Your task to perform on an android device: Search for coffee table on Crate & Barrel Image 0: 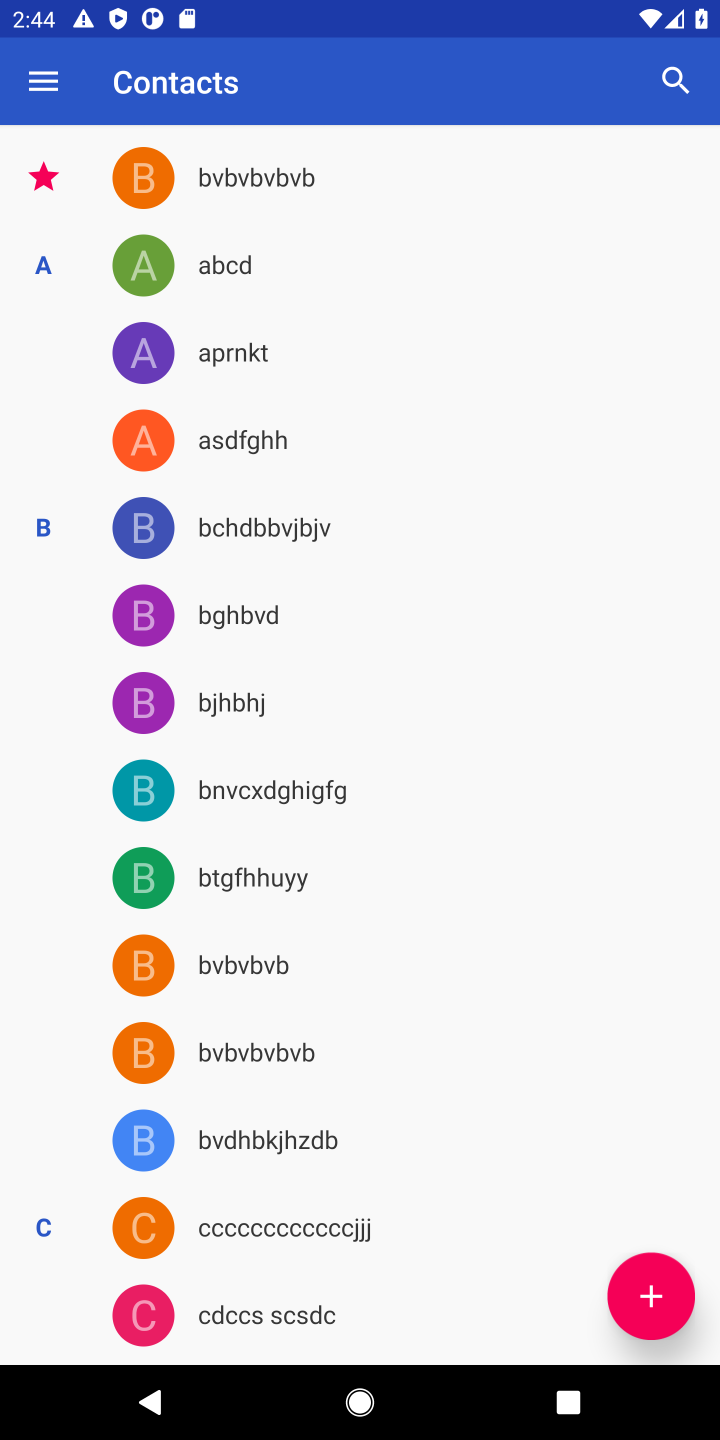
Step 0: press home button
Your task to perform on an android device: Search for coffee table on Crate & Barrel Image 1: 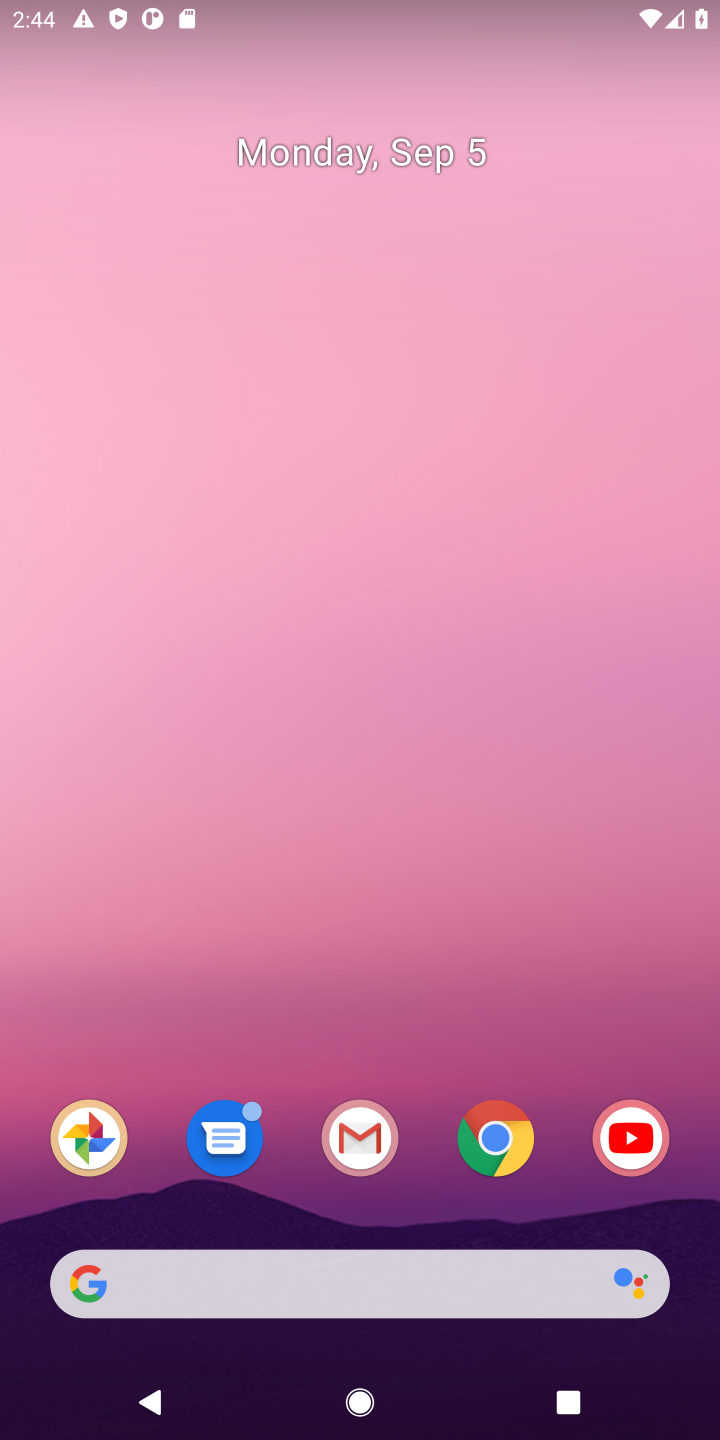
Step 1: click (494, 1140)
Your task to perform on an android device: Search for coffee table on Crate & Barrel Image 2: 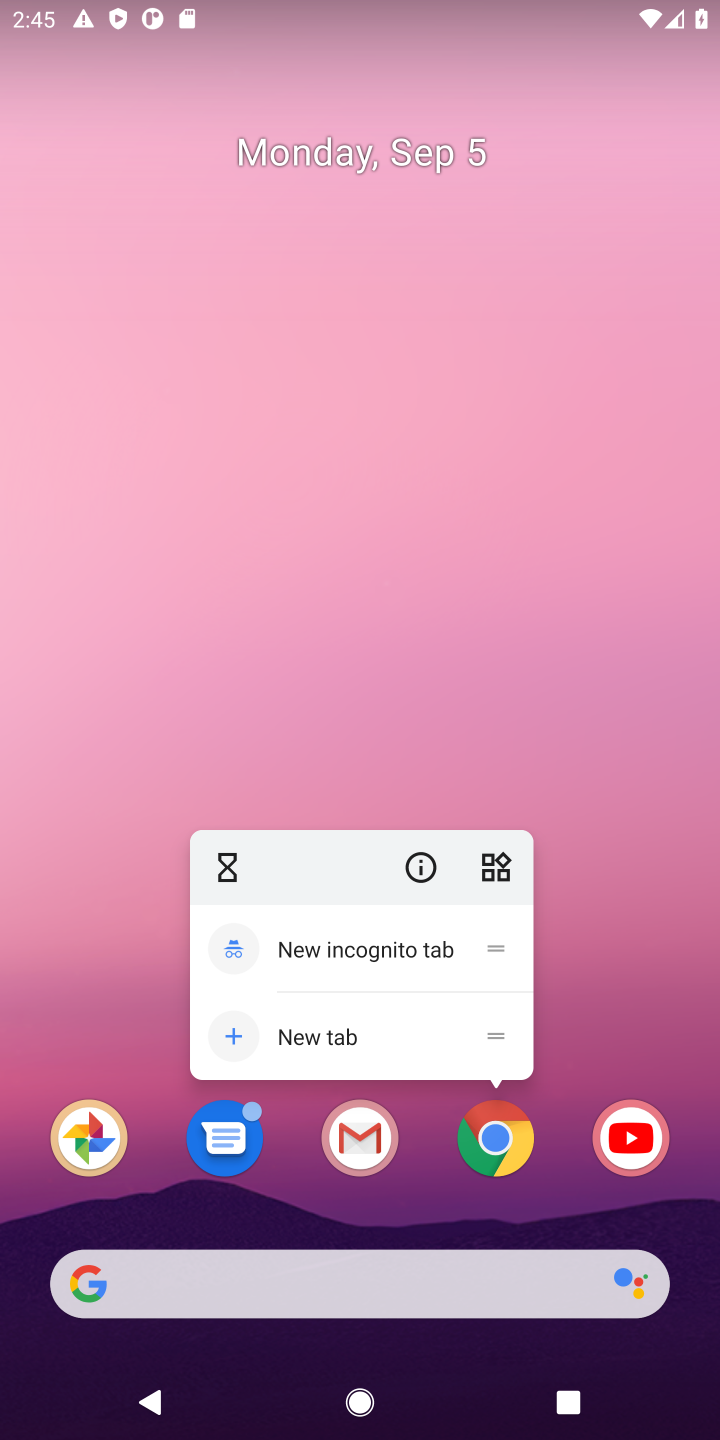
Step 2: click (502, 1135)
Your task to perform on an android device: Search for coffee table on Crate & Barrel Image 3: 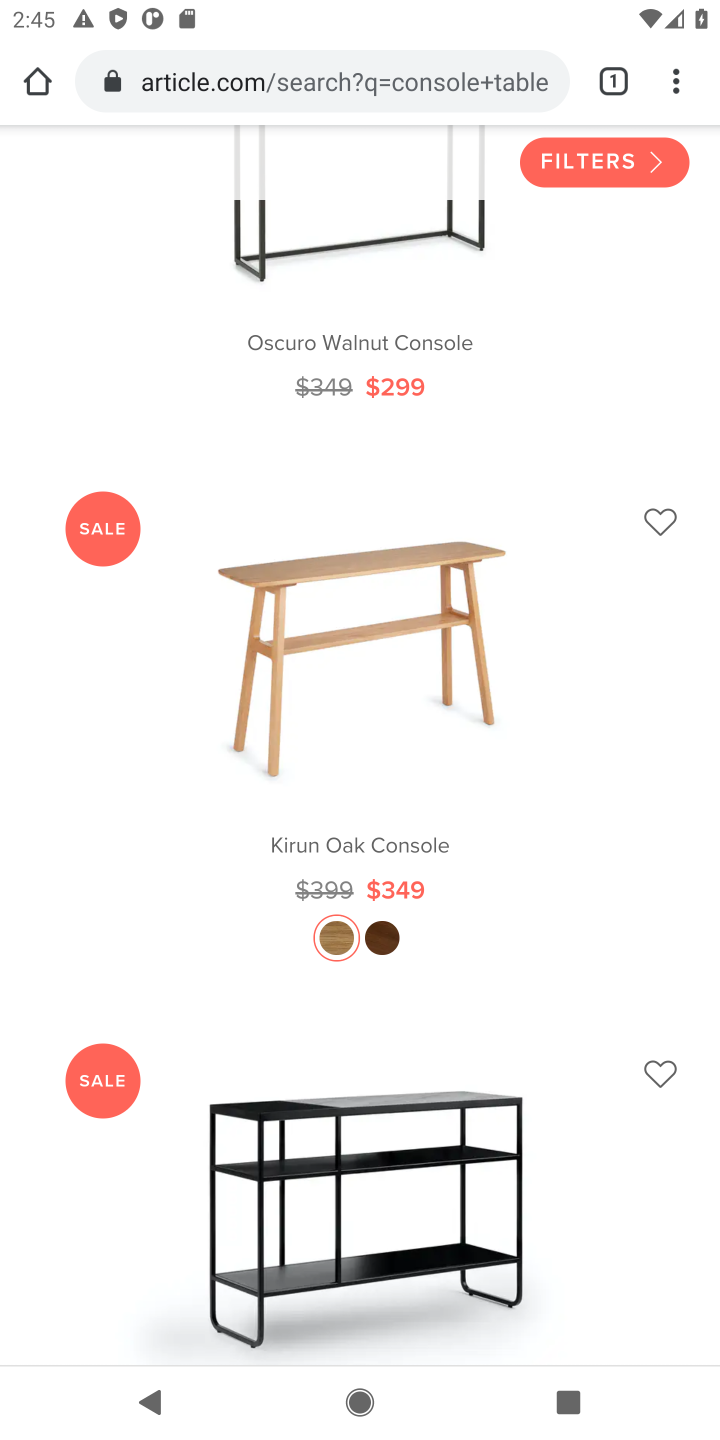
Step 3: click (341, 76)
Your task to perform on an android device: Search for coffee table on Crate & Barrel Image 4: 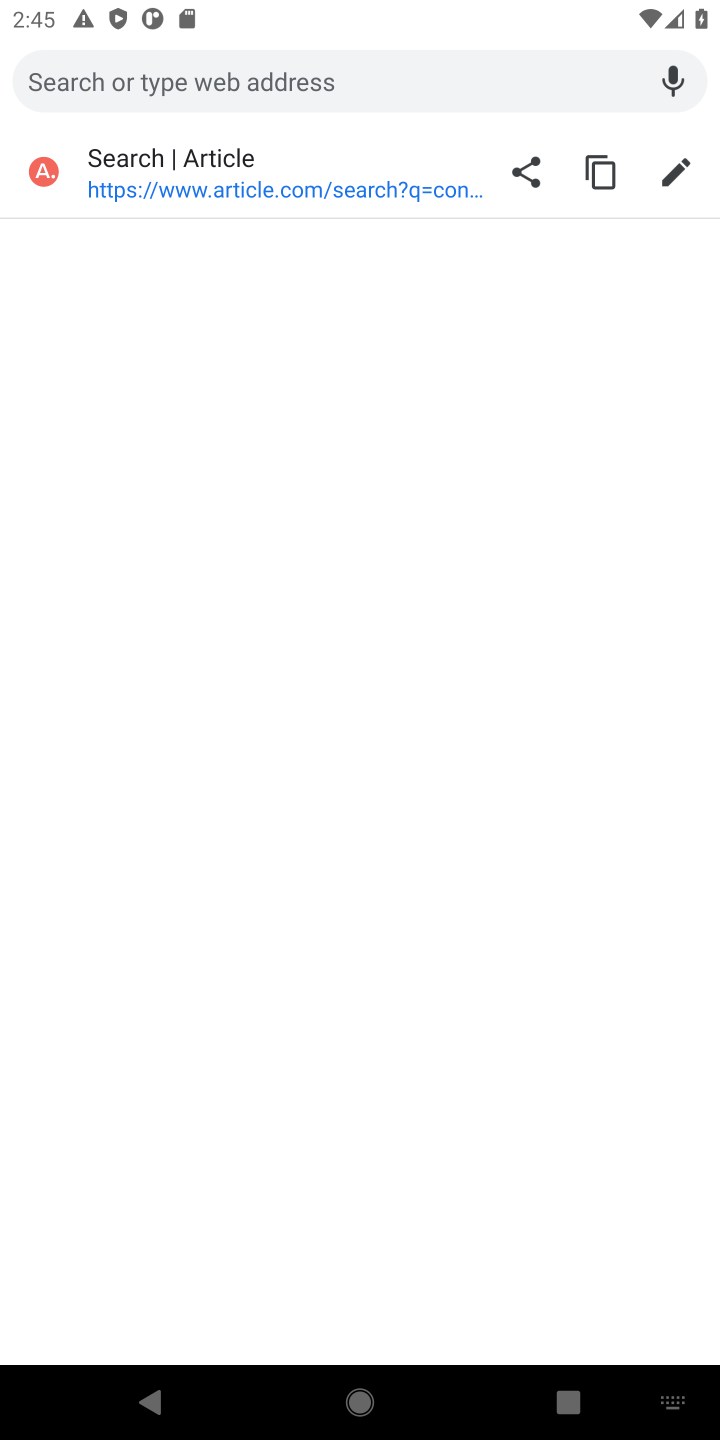
Step 4: click (247, 84)
Your task to perform on an android device: Search for coffee table on Crate & Barrel Image 5: 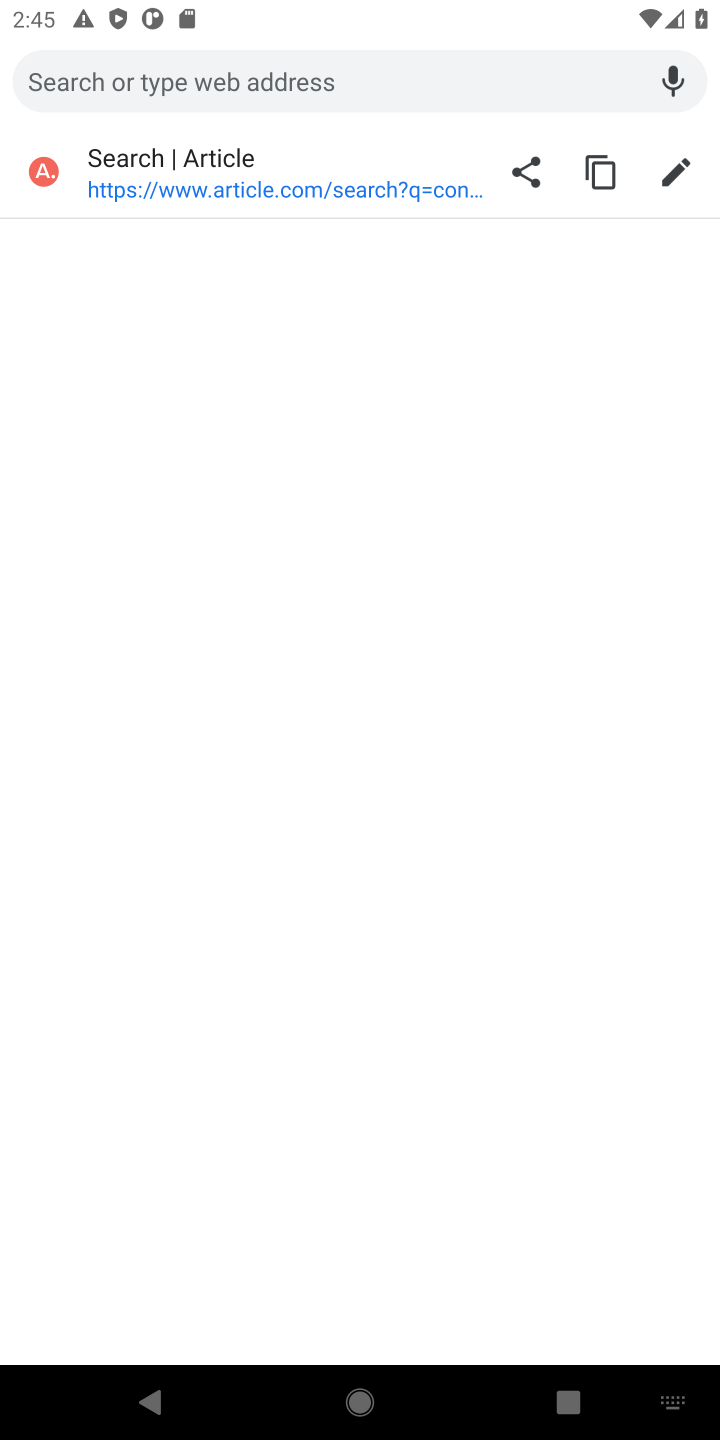
Step 5: type "Crate & Barrel"
Your task to perform on an android device: Search for coffee table on Crate & Barrel Image 6: 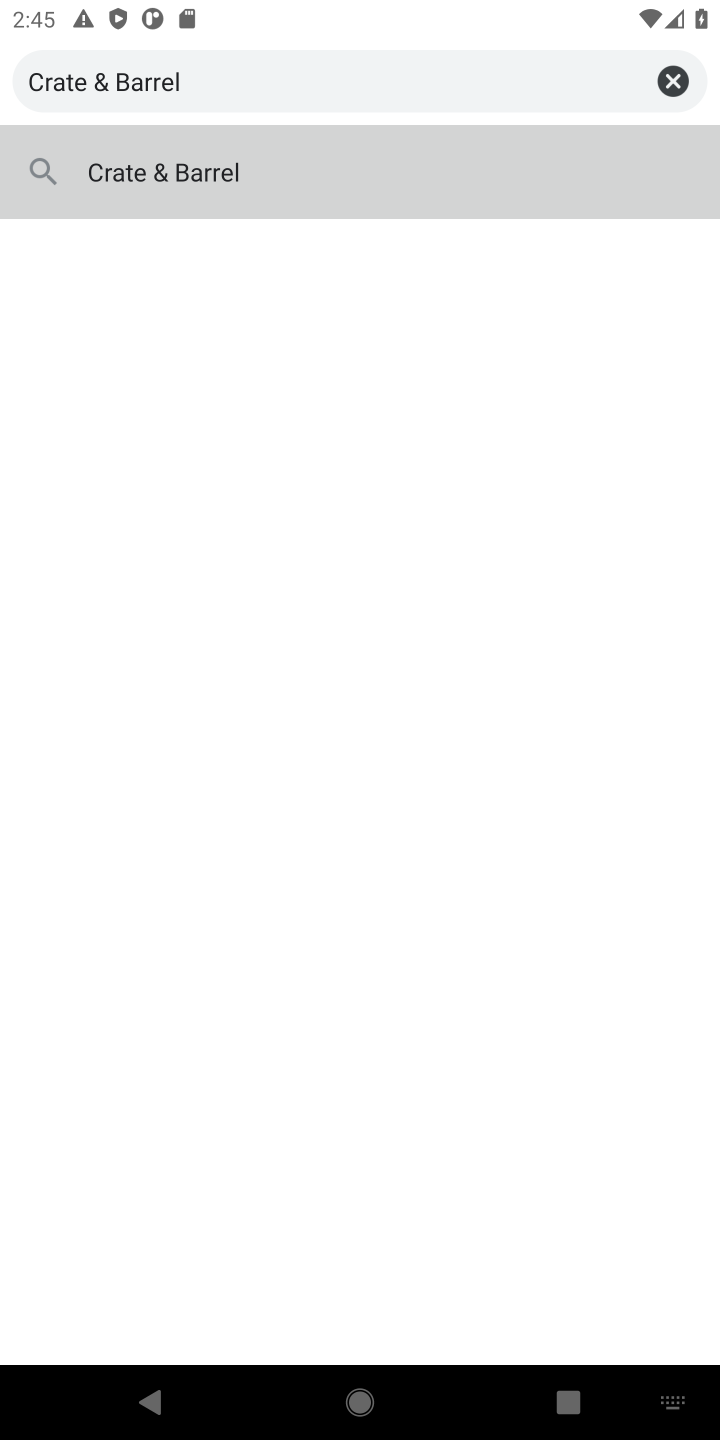
Step 6: click (370, 196)
Your task to perform on an android device: Search for coffee table on Crate & Barrel Image 7: 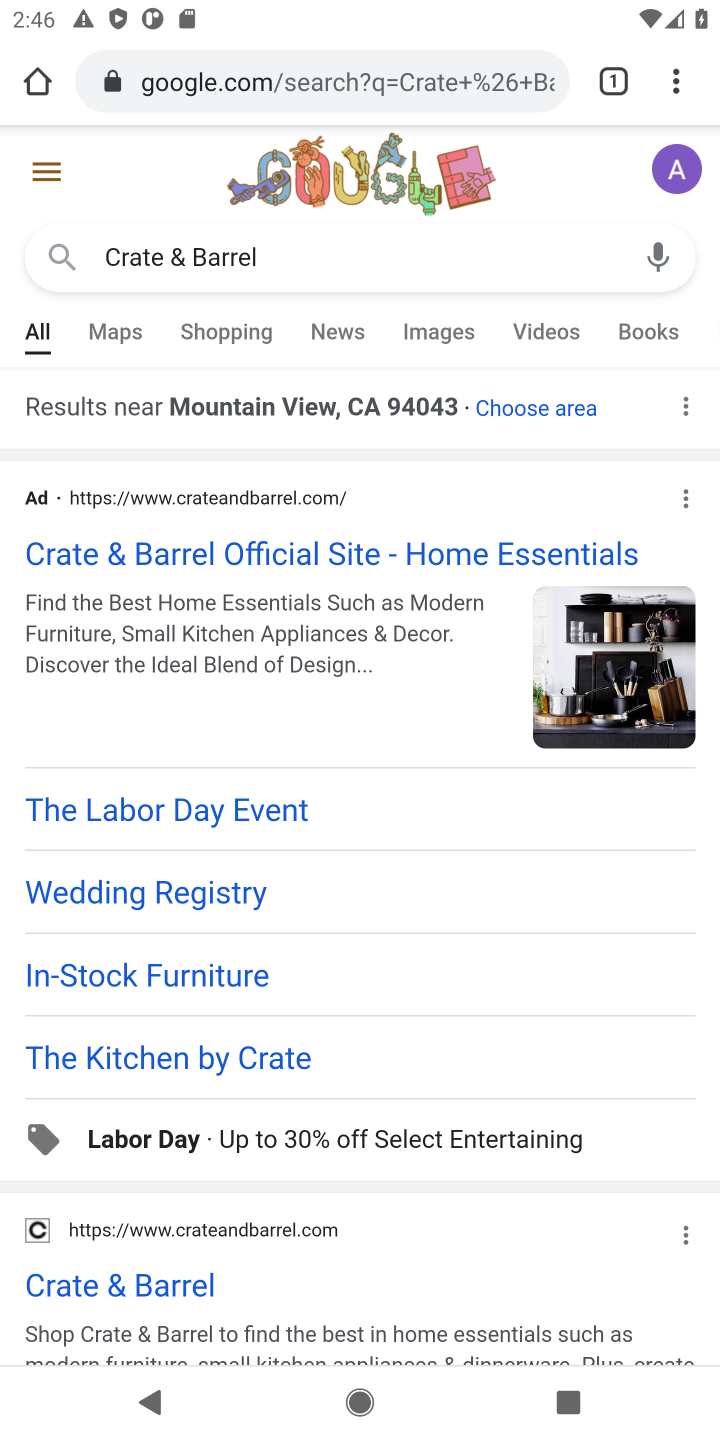
Step 7: click (229, 1299)
Your task to perform on an android device: Search for coffee table on Crate & Barrel Image 8: 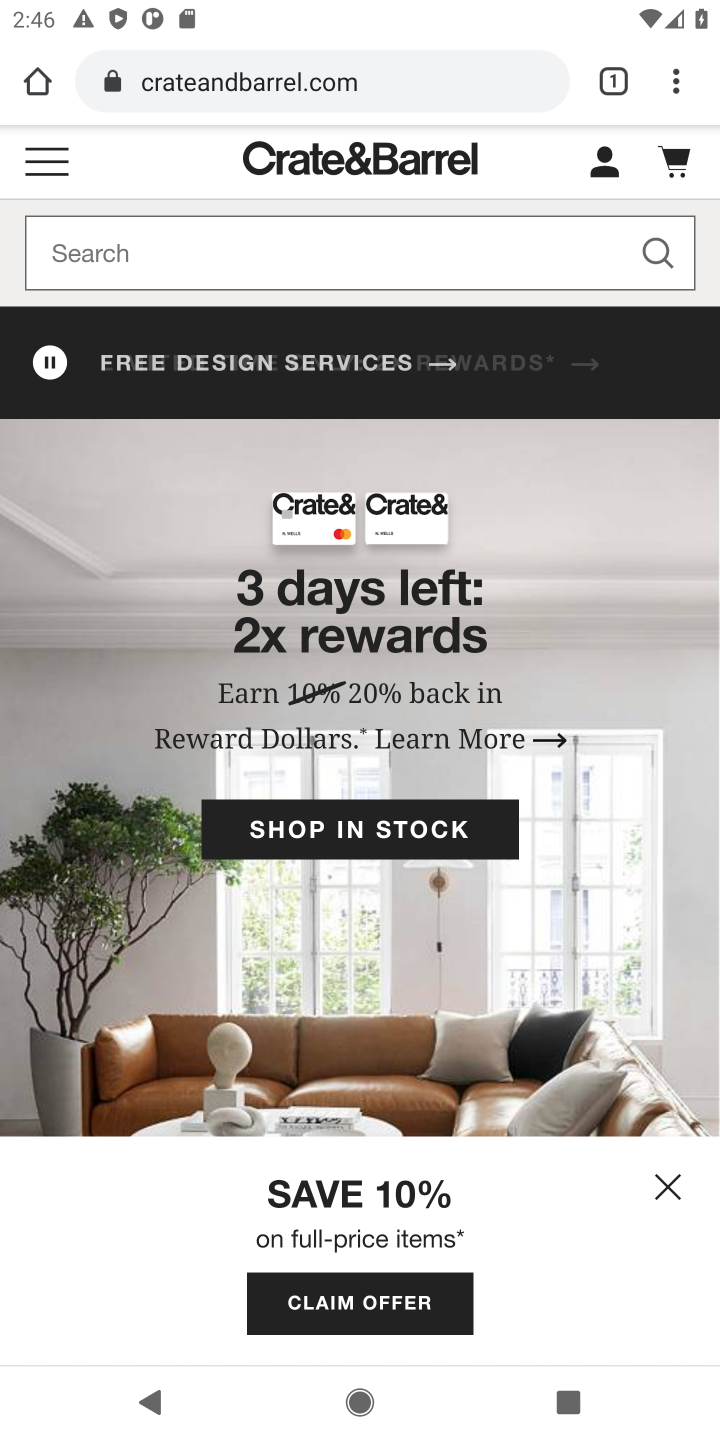
Step 8: click (359, 248)
Your task to perform on an android device: Search for coffee table on Crate & Barrel Image 9: 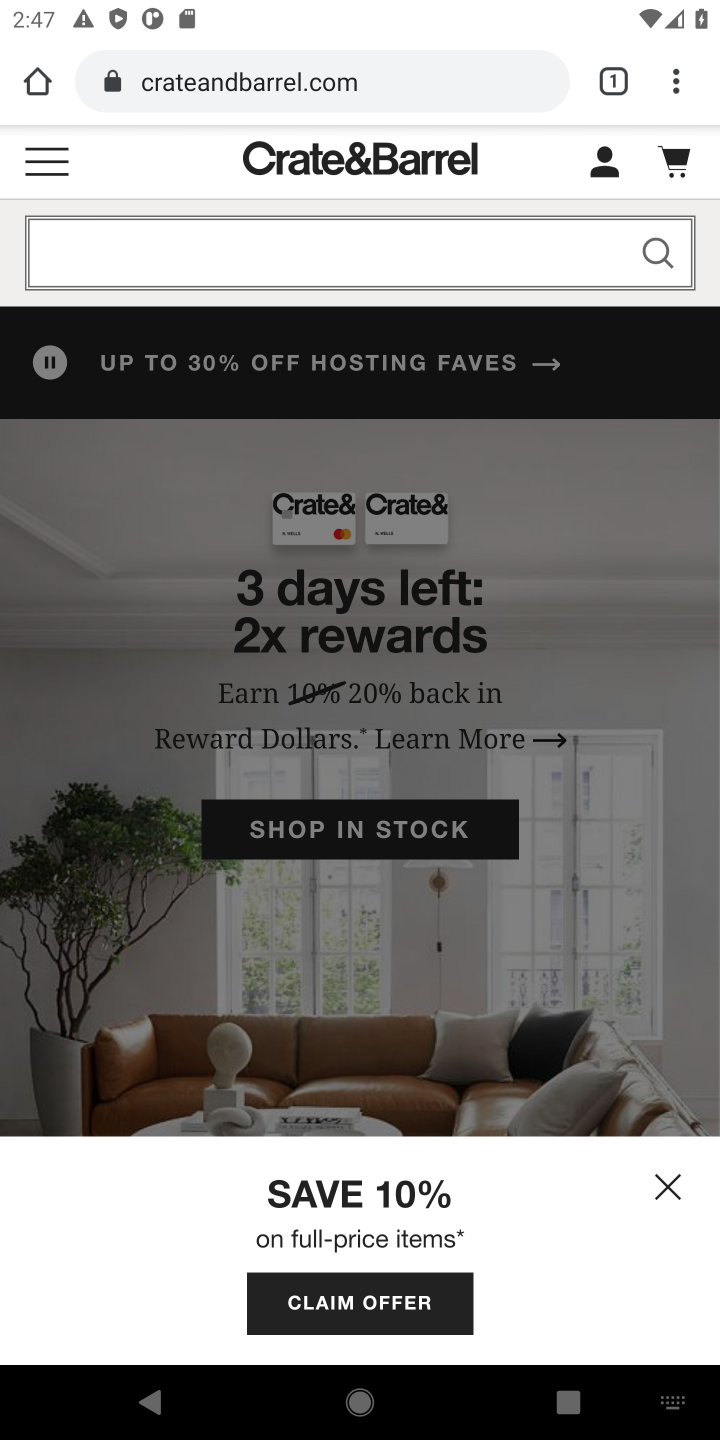
Step 9: type "coffee table"
Your task to perform on an android device: Search for coffee table on Crate & Barrel Image 10: 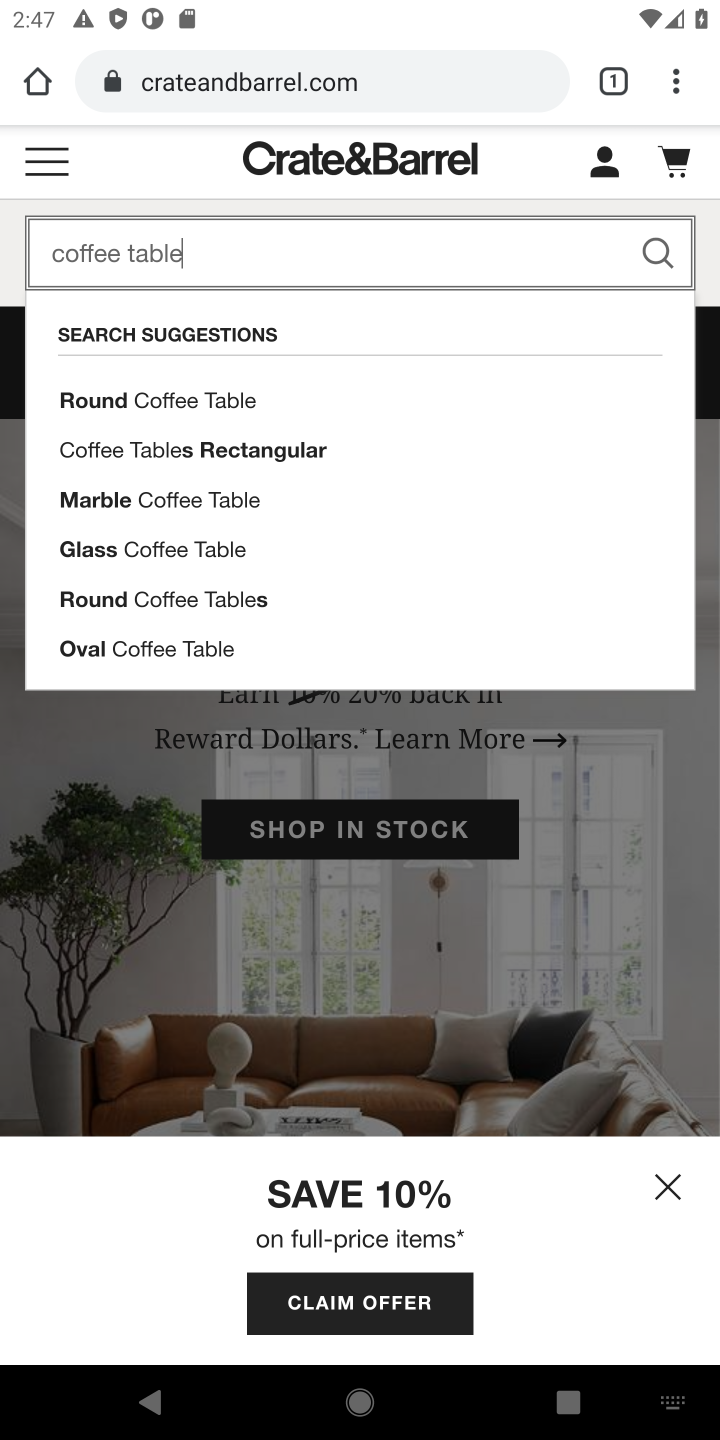
Step 10: click (665, 258)
Your task to perform on an android device: Search for coffee table on Crate & Barrel Image 11: 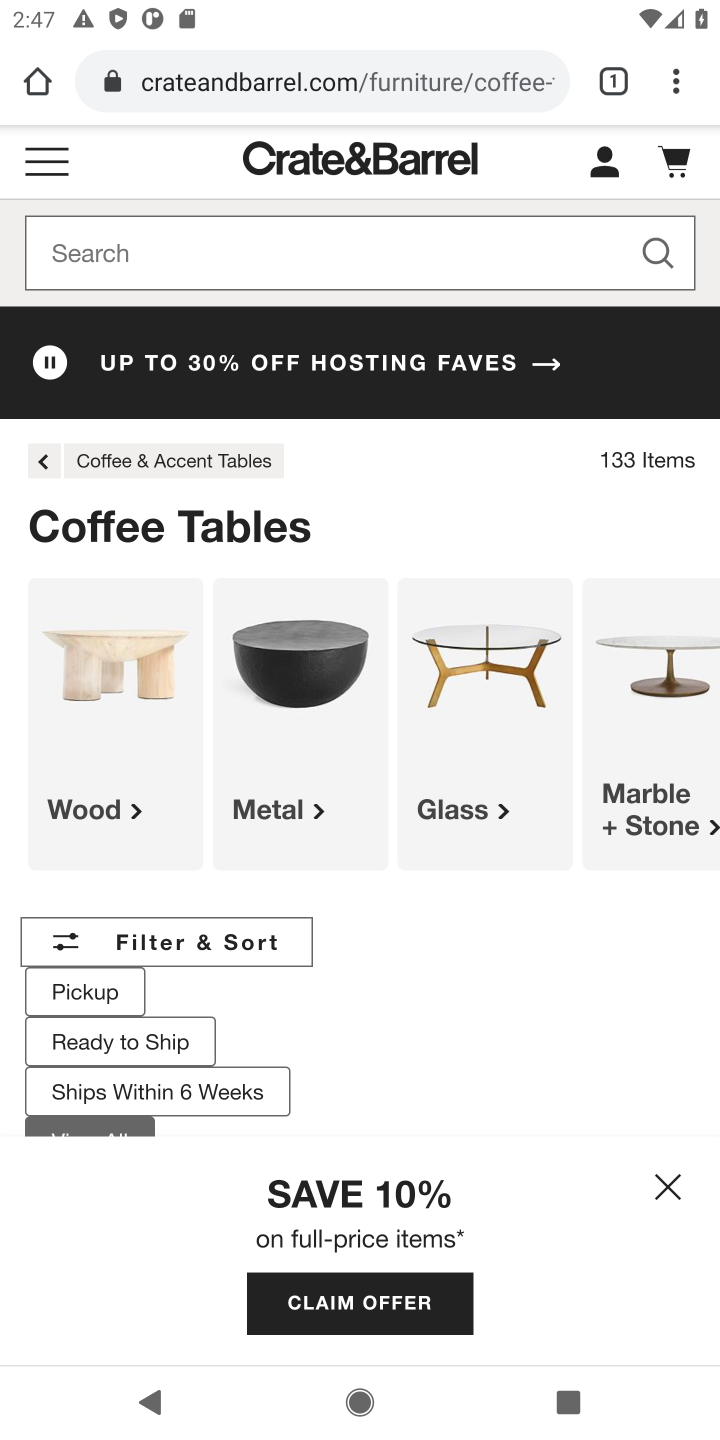
Step 11: task complete